Your task to perform on an android device: open chrome privacy settings Image 0: 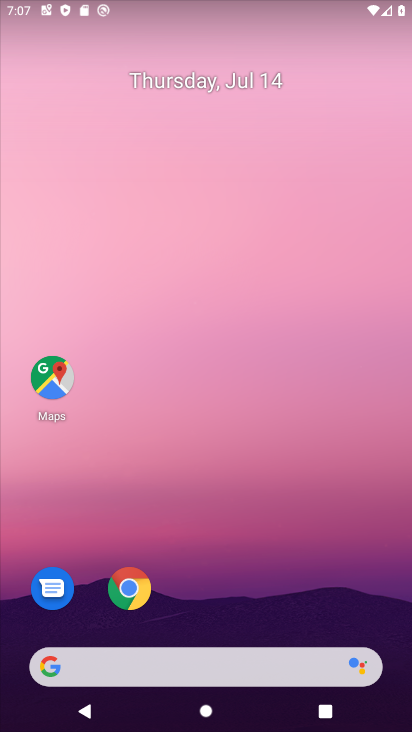
Step 0: drag from (356, 566) to (270, 20)
Your task to perform on an android device: open chrome privacy settings Image 1: 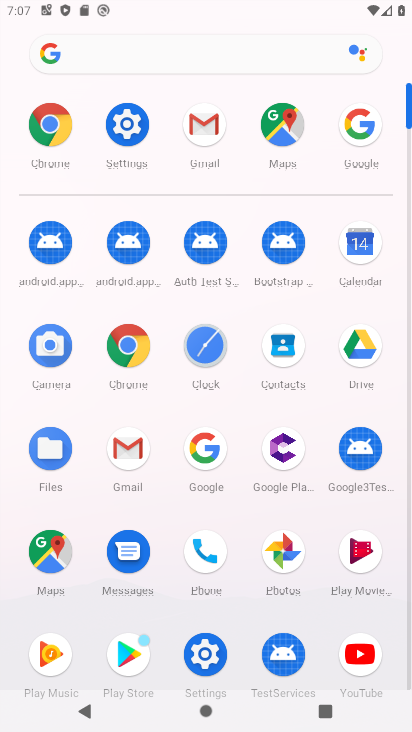
Step 1: click (64, 121)
Your task to perform on an android device: open chrome privacy settings Image 2: 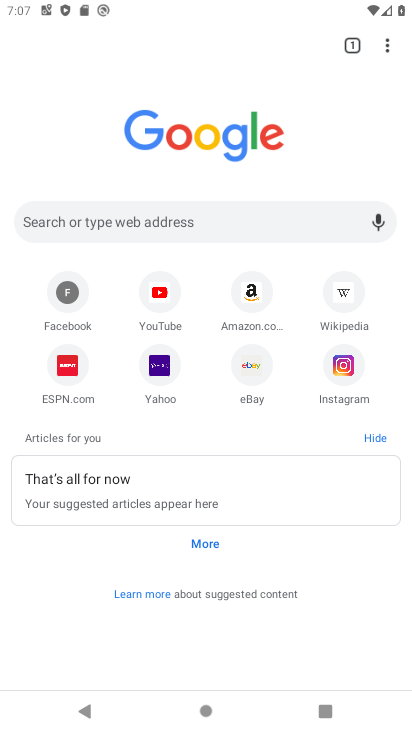
Step 2: click (384, 47)
Your task to perform on an android device: open chrome privacy settings Image 3: 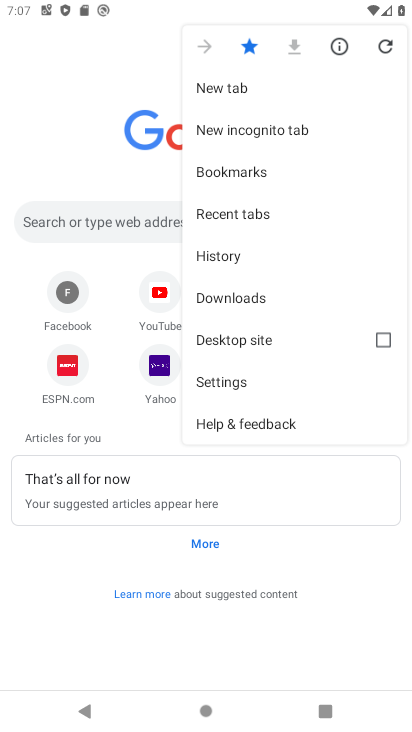
Step 3: click (205, 378)
Your task to perform on an android device: open chrome privacy settings Image 4: 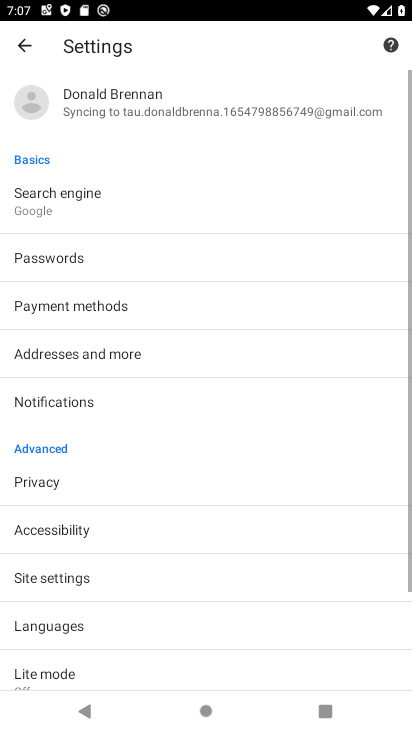
Step 4: click (58, 485)
Your task to perform on an android device: open chrome privacy settings Image 5: 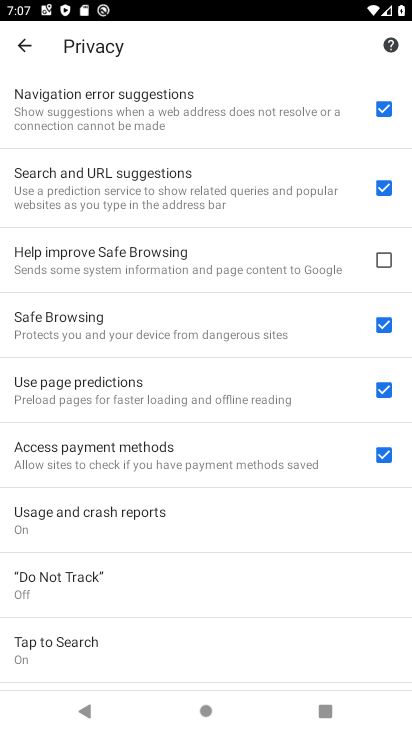
Step 5: task complete